Your task to perform on an android device: Go to display settings Image 0: 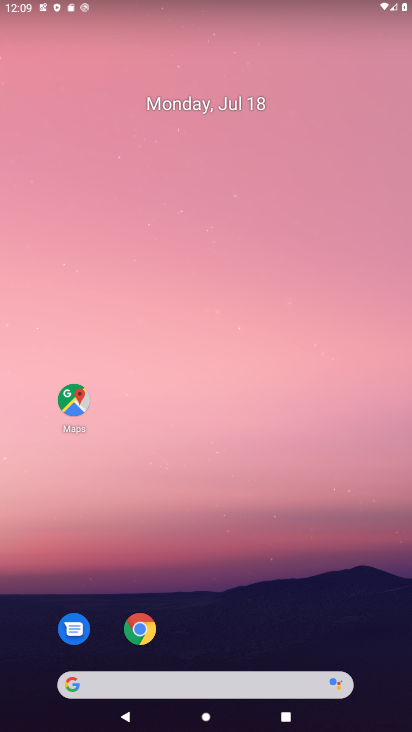
Step 0: drag from (228, 645) to (219, 10)
Your task to perform on an android device: Go to display settings Image 1: 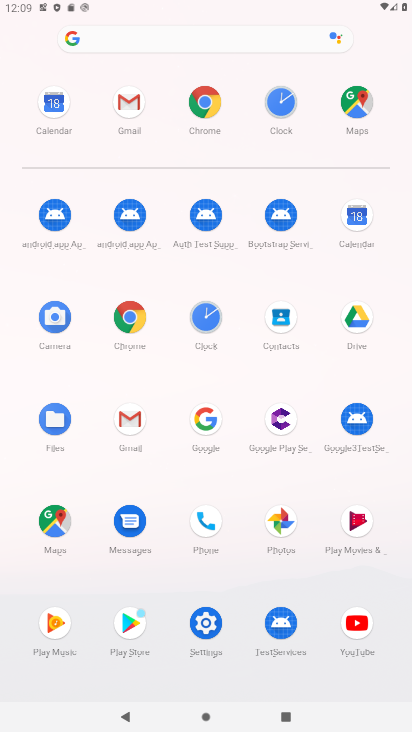
Step 1: click (204, 618)
Your task to perform on an android device: Go to display settings Image 2: 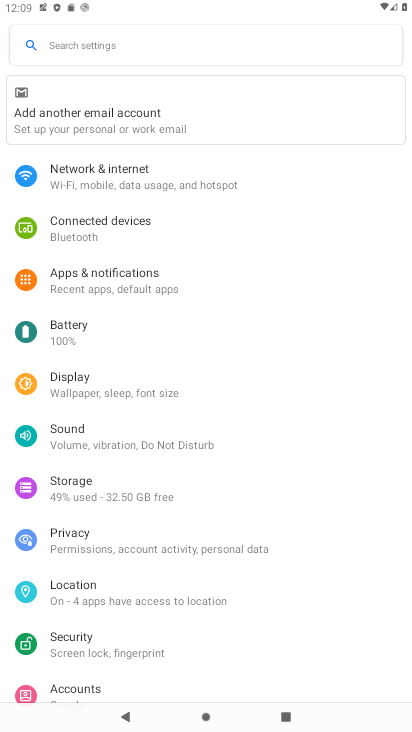
Step 2: click (94, 379)
Your task to perform on an android device: Go to display settings Image 3: 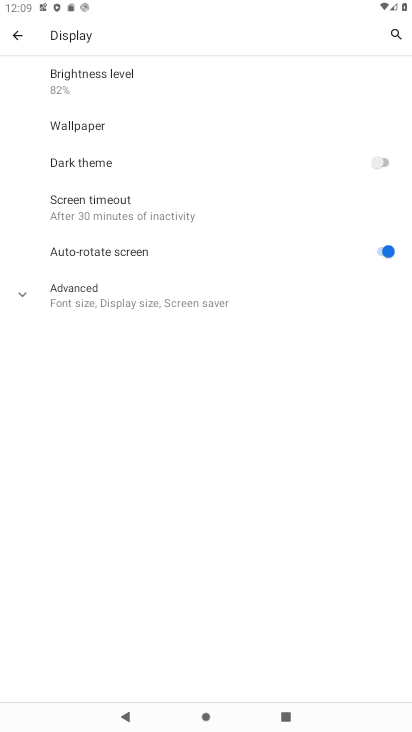
Step 3: click (24, 290)
Your task to perform on an android device: Go to display settings Image 4: 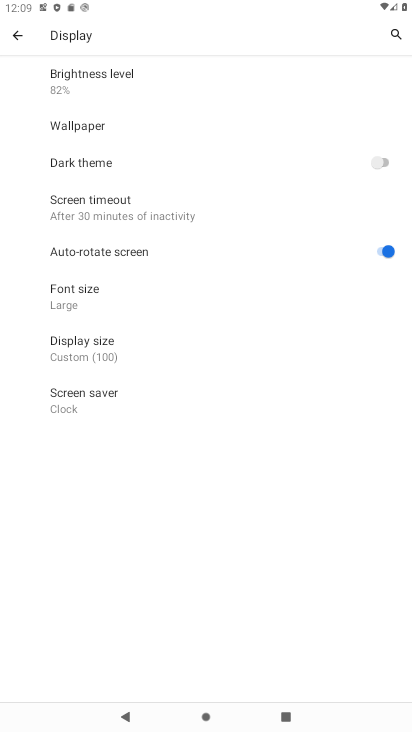
Step 4: task complete